Your task to perform on an android device: change notification settings in the gmail app Image 0: 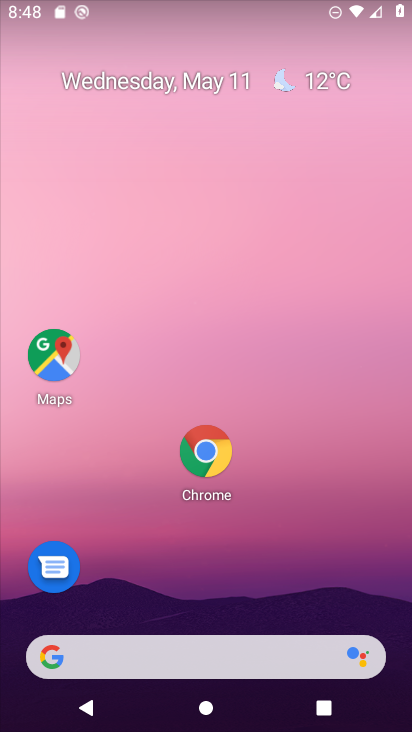
Step 0: drag from (185, 648) to (287, 262)
Your task to perform on an android device: change notification settings in the gmail app Image 1: 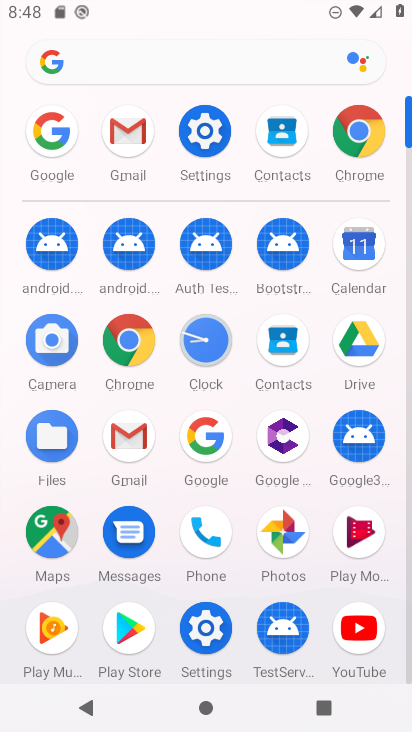
Step 1: click (123, 139)
Your task to perform on an android device: change notification settings in the gmail app Image 2: 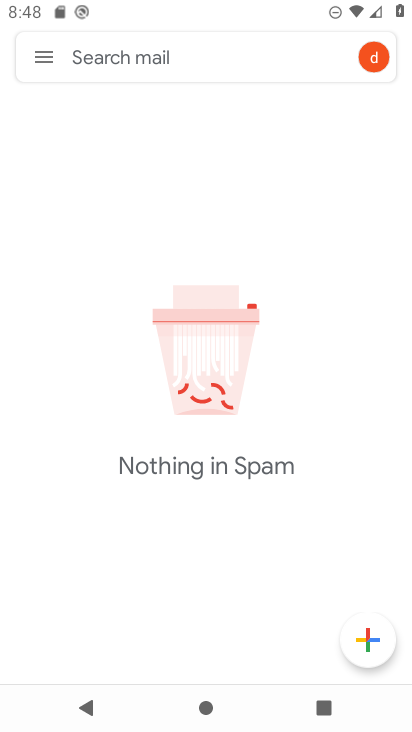
Step 2: click (43, 60)
Your task to perform on an android device: change notification settings in the gmail app Image 3: 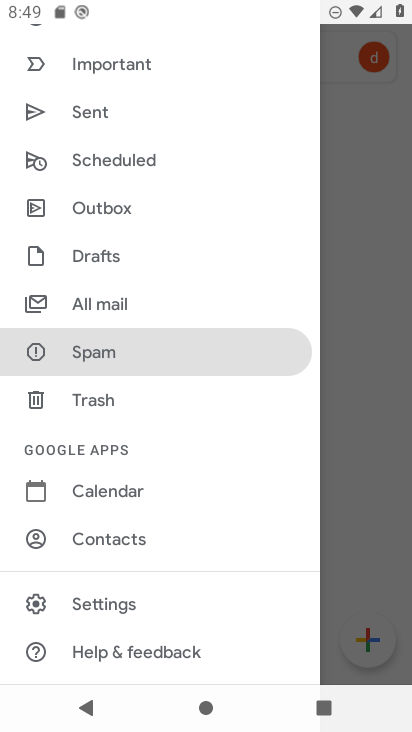
Step 3: click (124, 602)
Your task to perform on an android device: change notification settings in the gmail app Image 4: 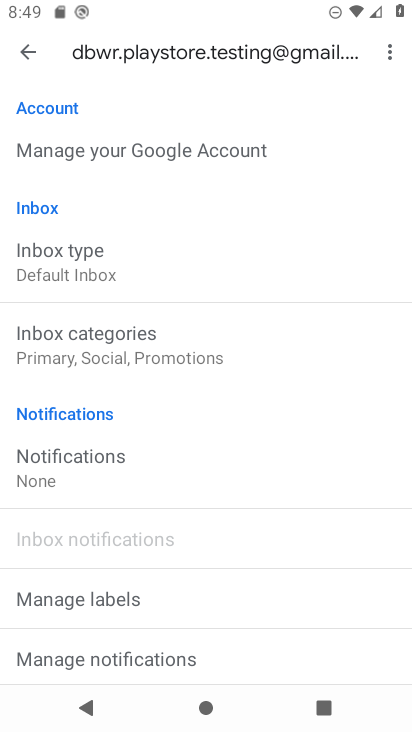
Step 4: click (70, 464)
Your task to perform on an android device: change notification settings in the gmail app Image 5: 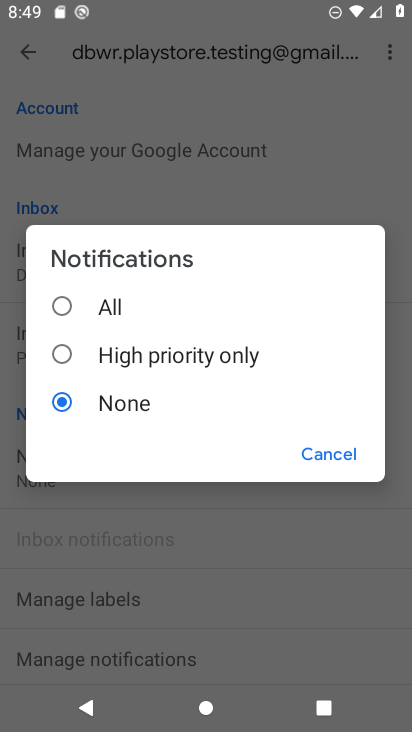
Step 5: click (61, 308)
Your task to perform on an android device: change notification settings in the gmail app Image 6: 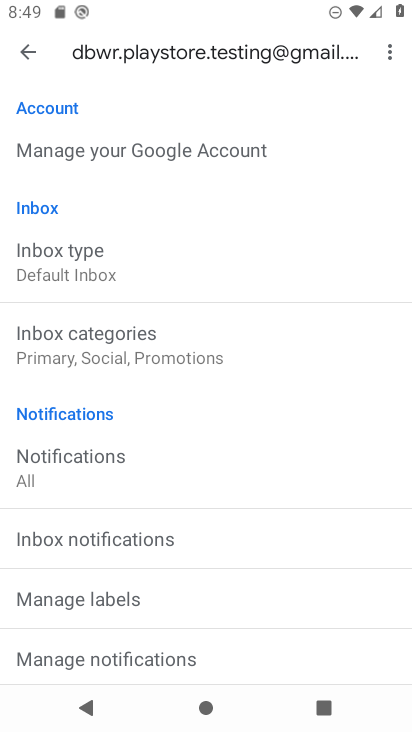
Step 6: task complete